Your task to perform on an android device: turn off airplane mode Image 0: 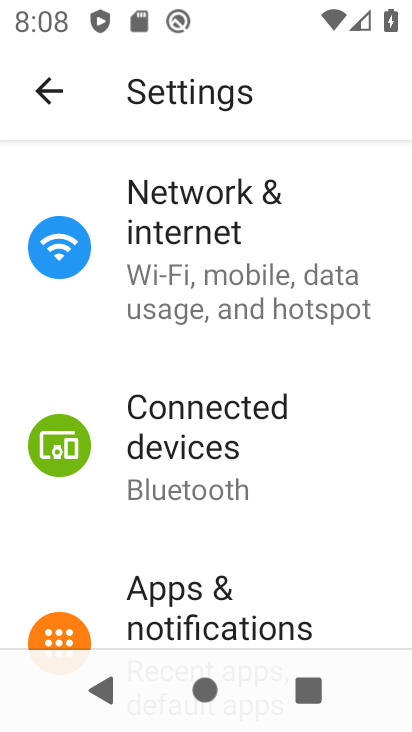
Step 0: press back button
Your task to perform on an android device: turn off airplane mode Image 1: 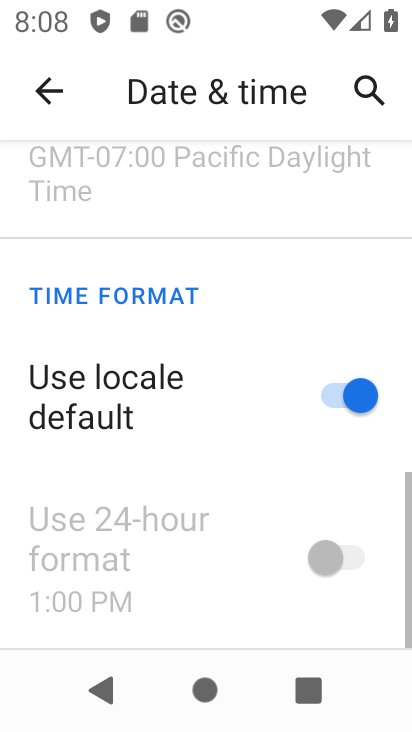
Step 1: press back button
Your task to perform on an android device: turn off airplane mode Image 2: 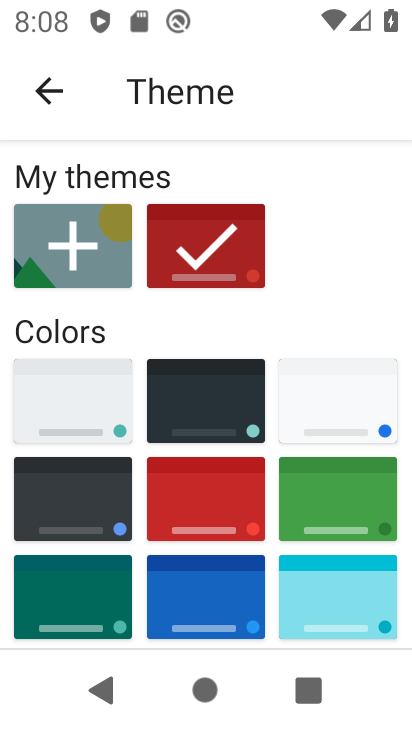
Step 2: press back button
Your task to perform on an android device: turn off airplane mode Image 3: 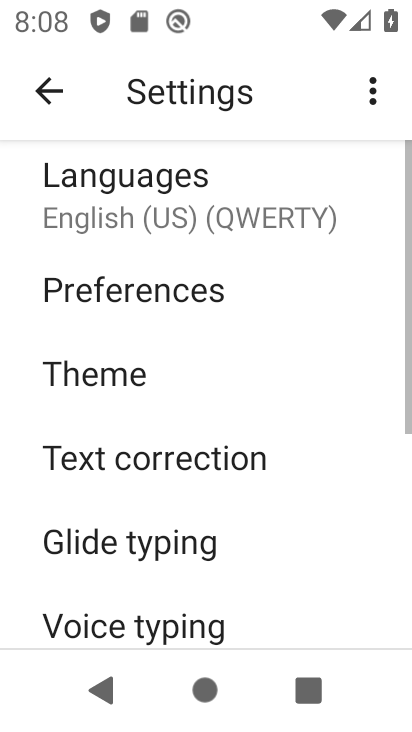
Step 3: press back button
Your task to perform on an android device: turn off airplane mode Image 4: 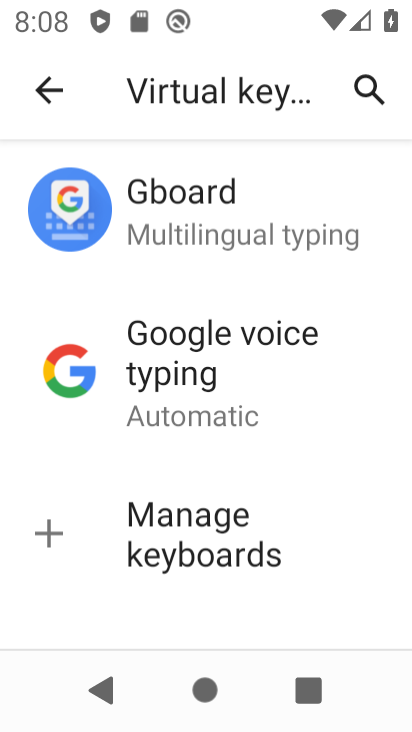
Step 4: press back button
Your task to perform on an android device: turn off airplane mode Image 5: 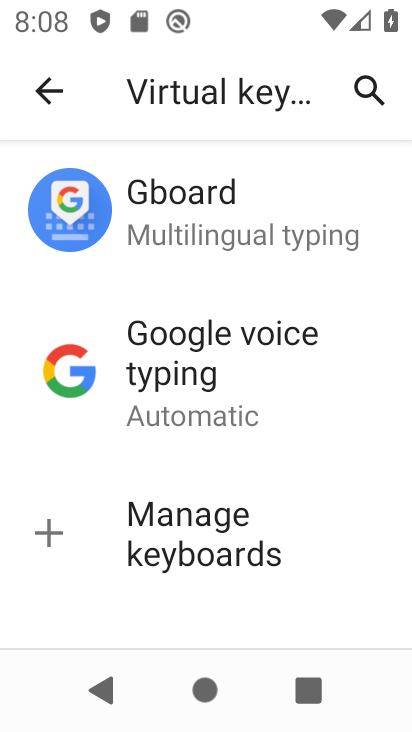
Step 5: press back button
Your task to perform on an android device: turn off airplane mode Image 6: 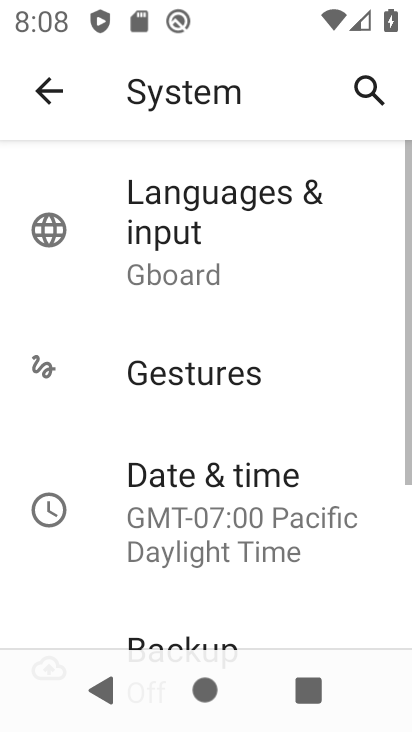
Step 6: press back button
Your task to perform on an android device: turn off airplane mode Image 7: 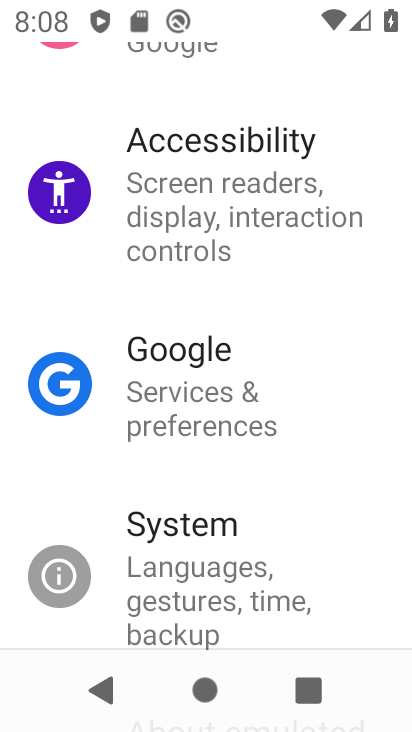
Step 7: press back button
Your task to perform on an android device: turn off airplane mode Image 8: 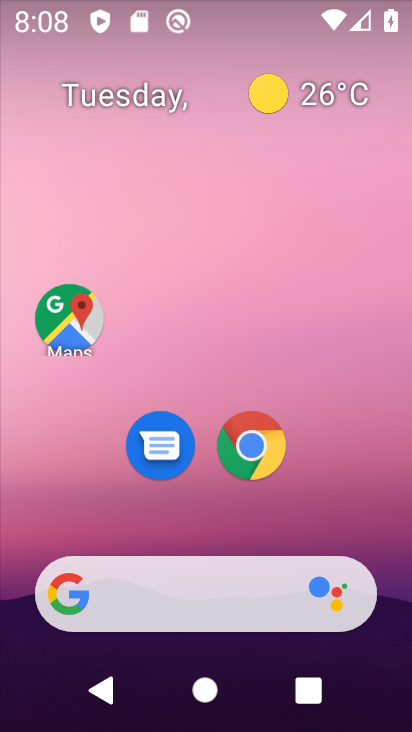
Step 8: drag from (315, 516) to (347, 250)
Your task to perform on an android device: turn off airplane mode Image 9: 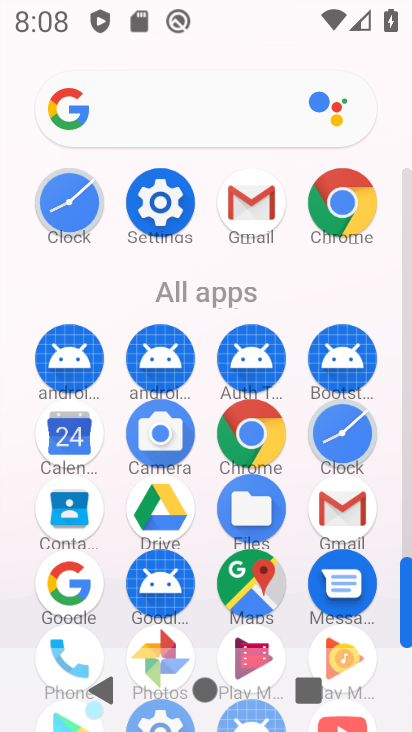
Step 9: click (160, 201)
Your task to perform on an android device: turn off airplane mode Image 10: 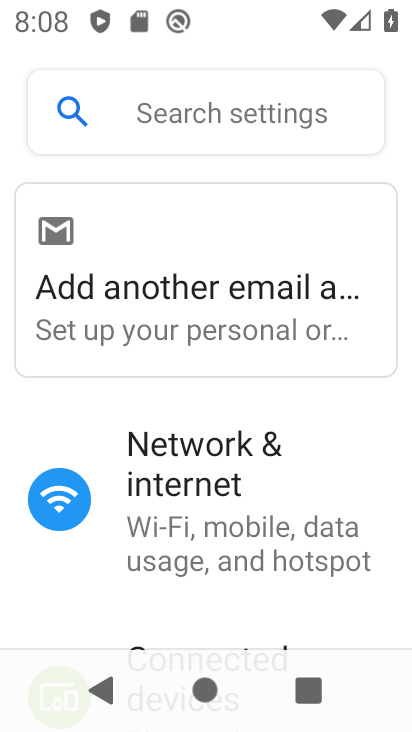
Step 10: click (178, 471)
Your task to perform on an android device: turn off airplane mode Image 11: 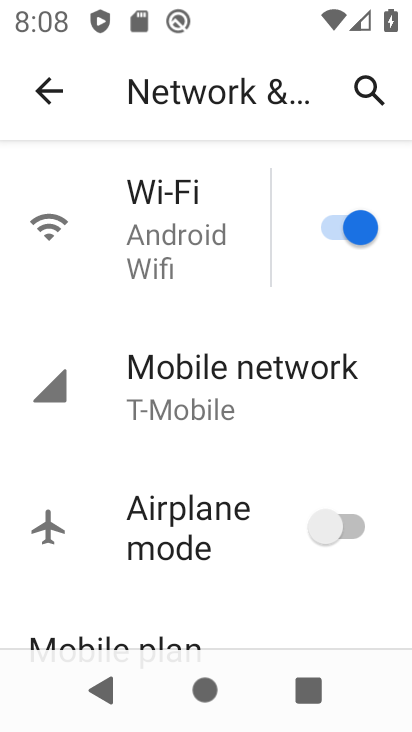
Step 11: task complete